Your task to perform on an android device: Open network settings Image 0: 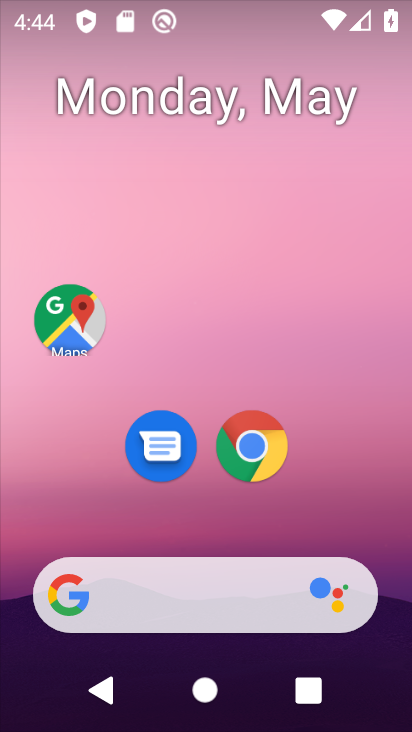
Step 0: drag from (346, 479) to (249, 9)
Your task to perform on an android device: Open network settings Image 1: 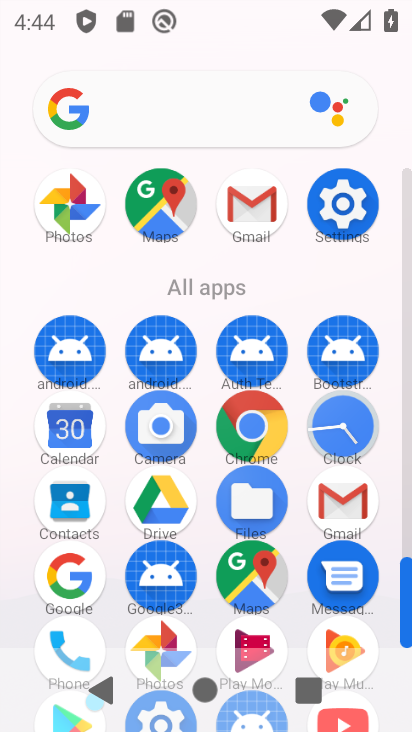
Step 1: click (346, 205)
Your task to perform on an android device: Open network settings Image 2: 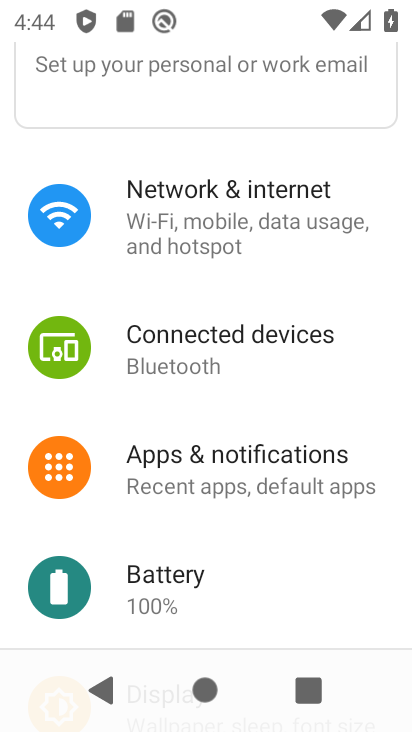
Step 2: click (211, 211)
Your task to perform on an android device: Open network settings Image 3: 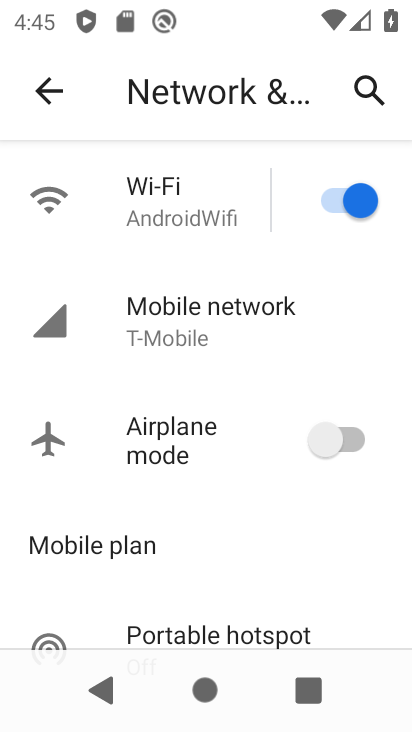
Step 3: task complete